Your task to perform on an android device: turn off airplane mode Image 0: 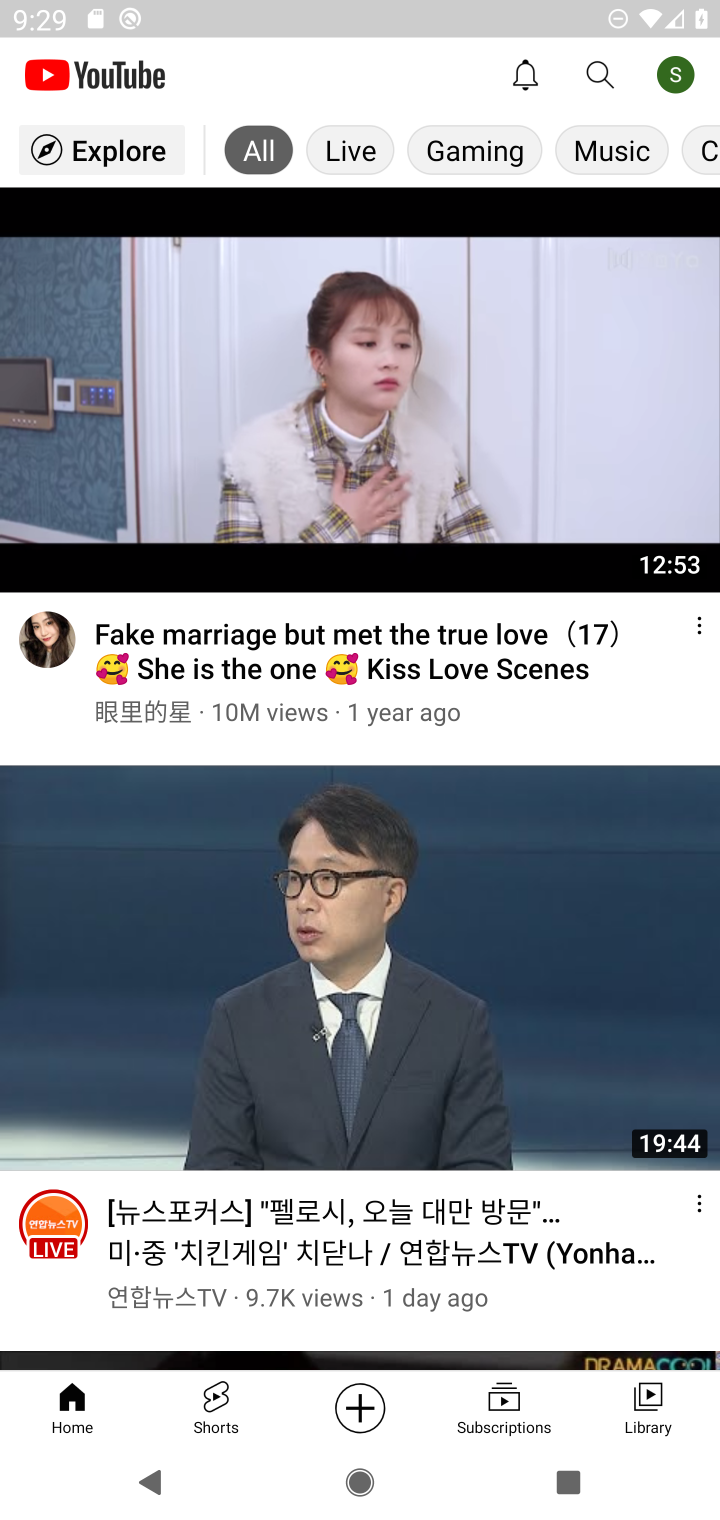
Step 0: press home button
Your task to perform on an android device: turn off airplane mode Image 1: 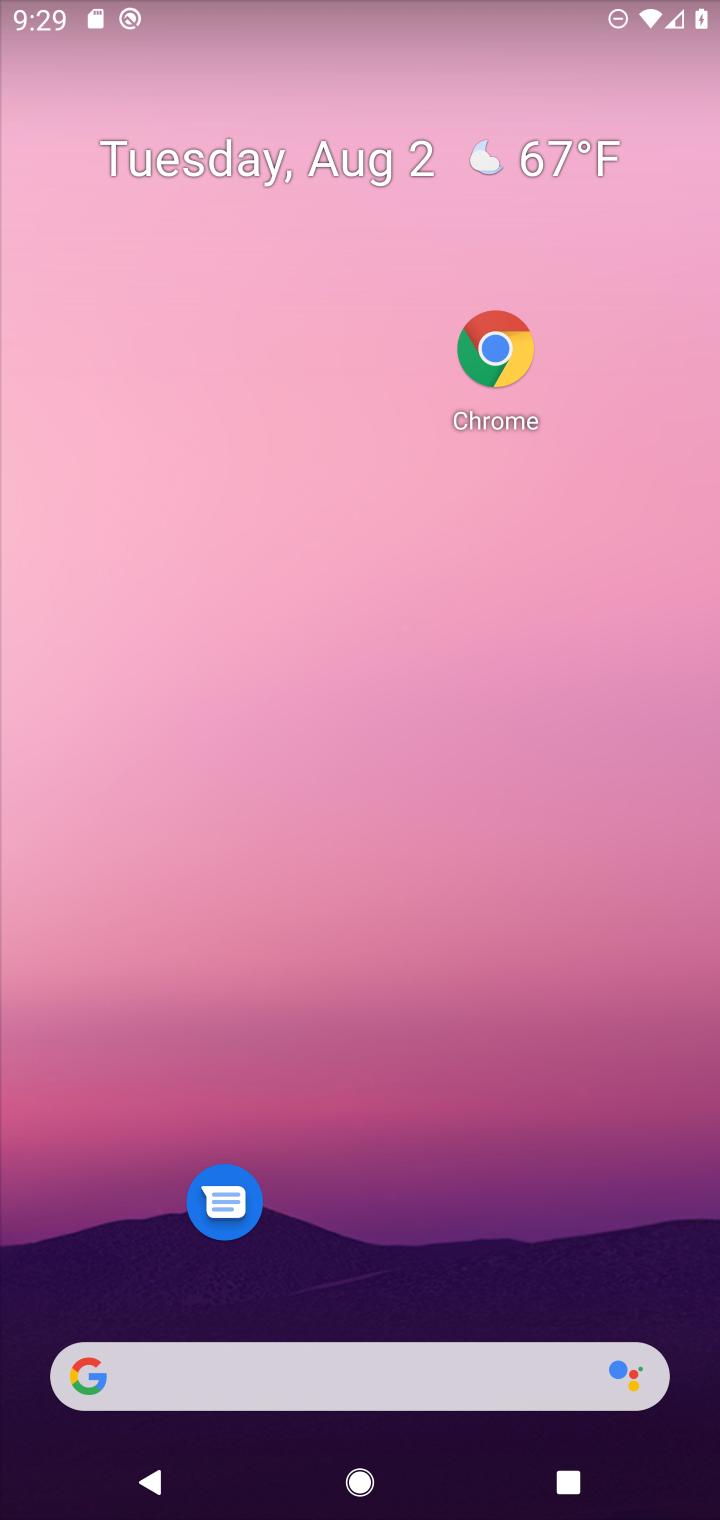
Step 1: drag from (404, 1217) to (374, 49)
Your task to perform on an android device: turn off airplane mode Image 2: 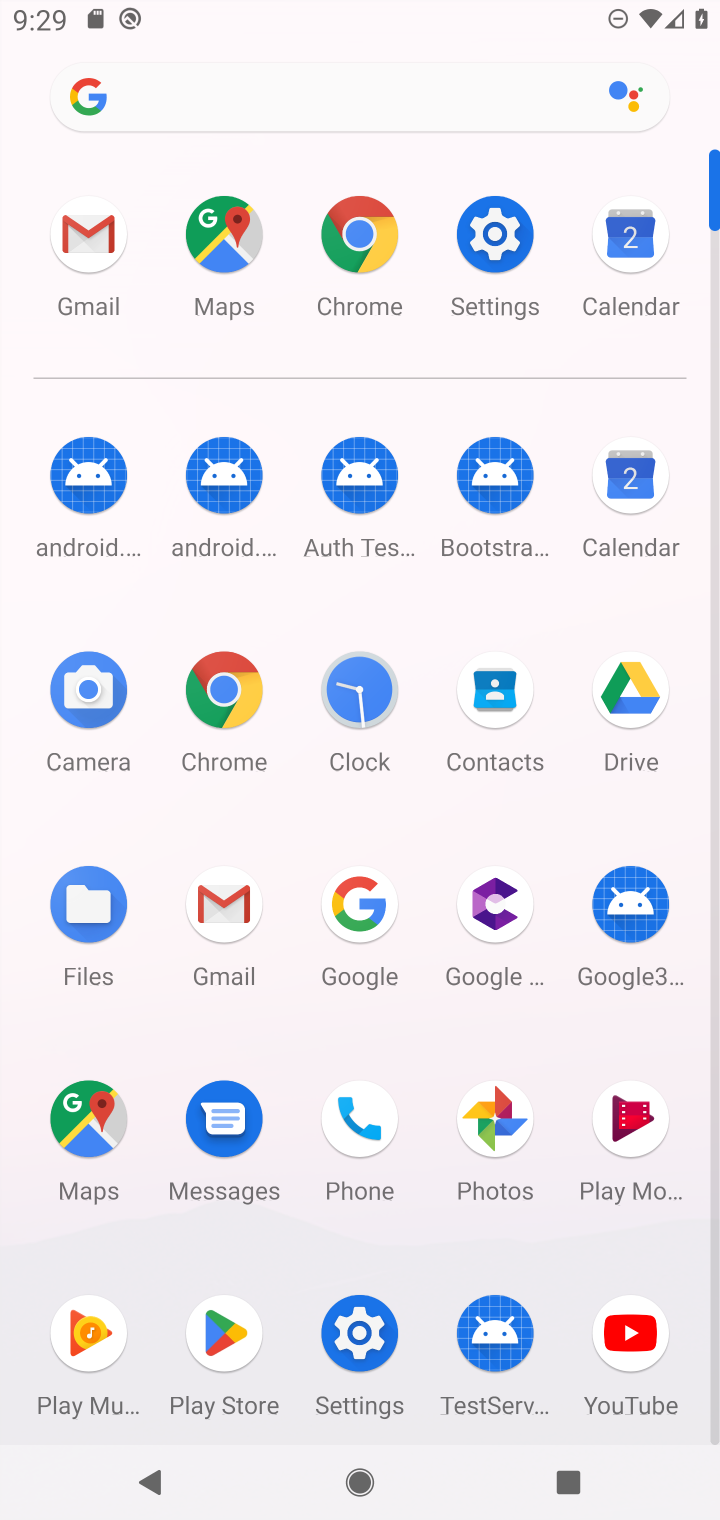
Step 2: click (492, 234)
Your task to perform on an android device: turn off airplane mode Image 3: 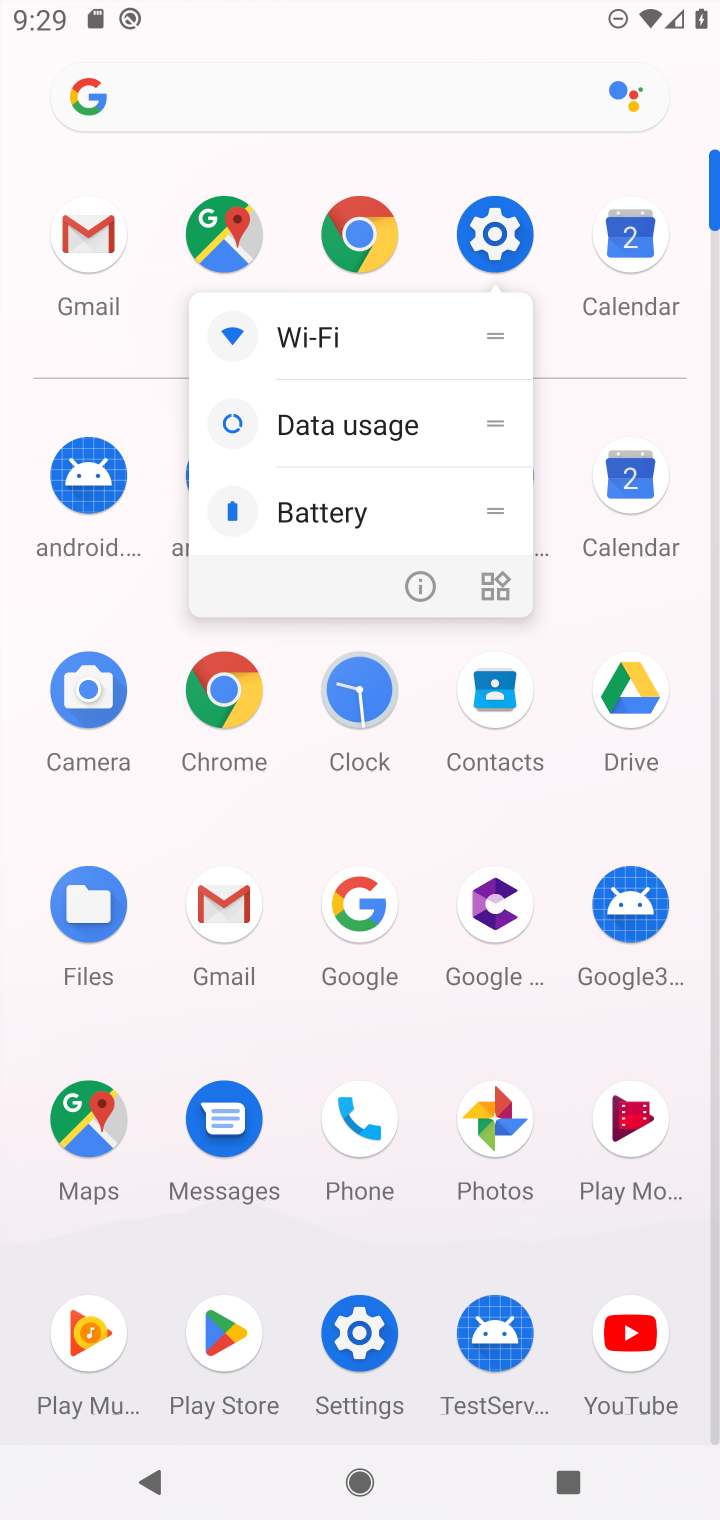
Step 3: click (510, 227)
Your task to perform on an android device: turn off airplane mode Image 4: 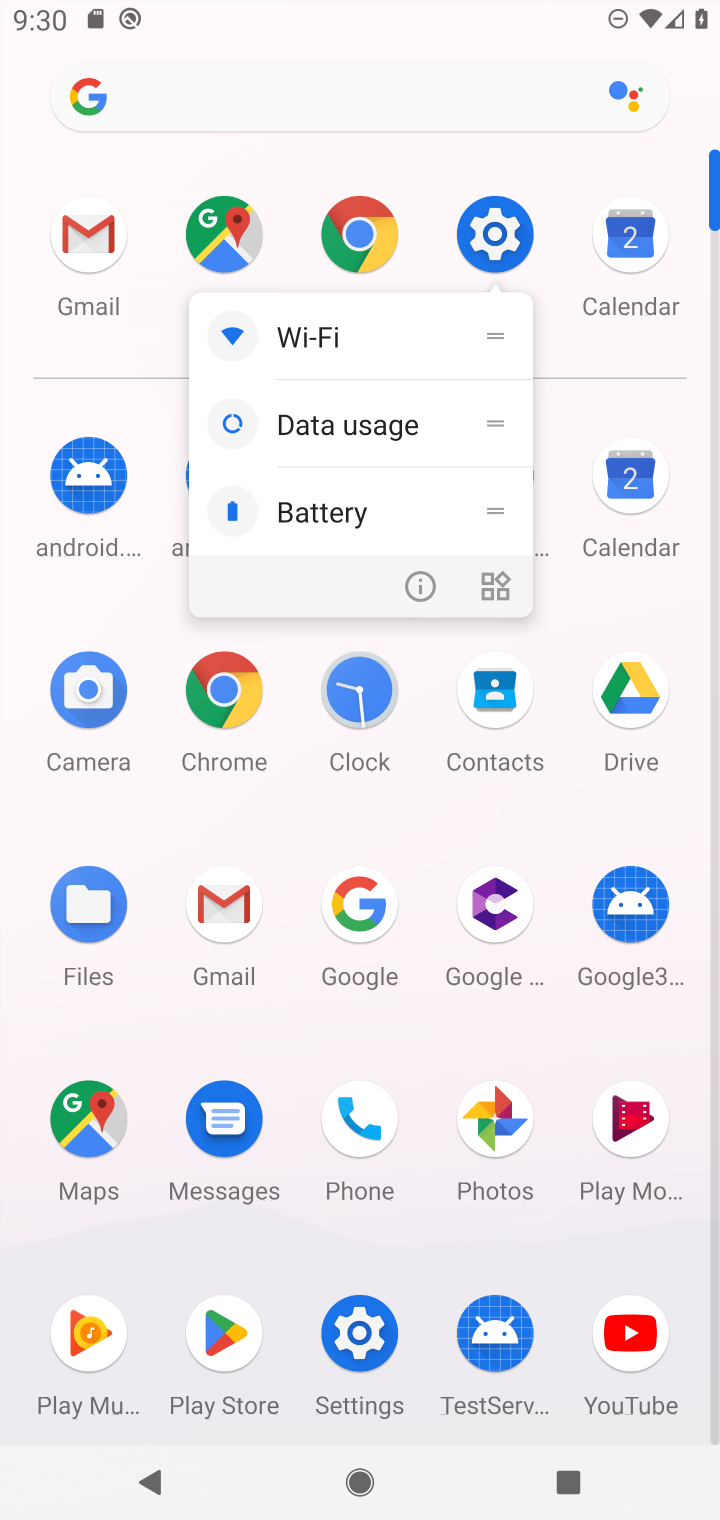
Step 4: click (500, 235)
Your task to perform on an android device: turn off airplane mode Image 5: 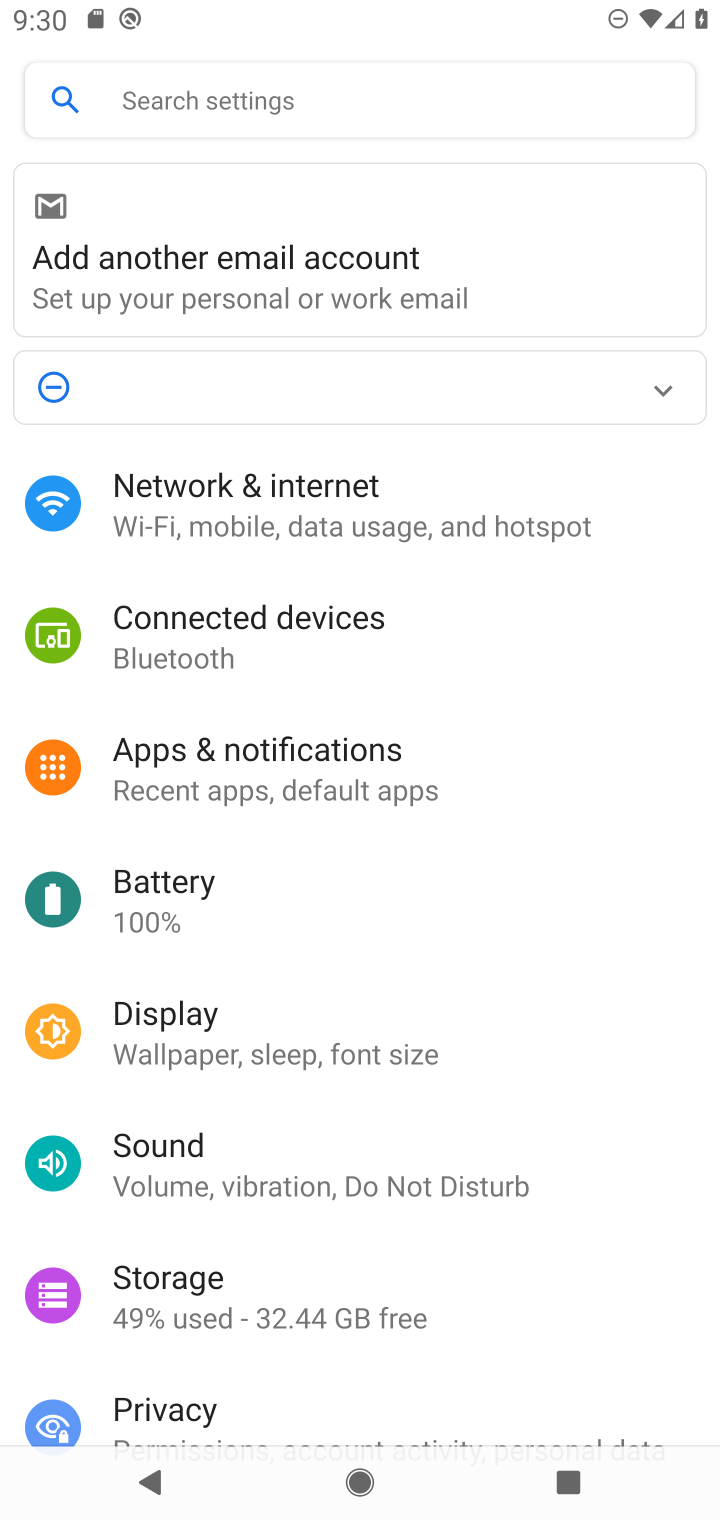
Step 5: click (318, 528)
Your task to perform on an android device: turn off airplane mode Image 6: 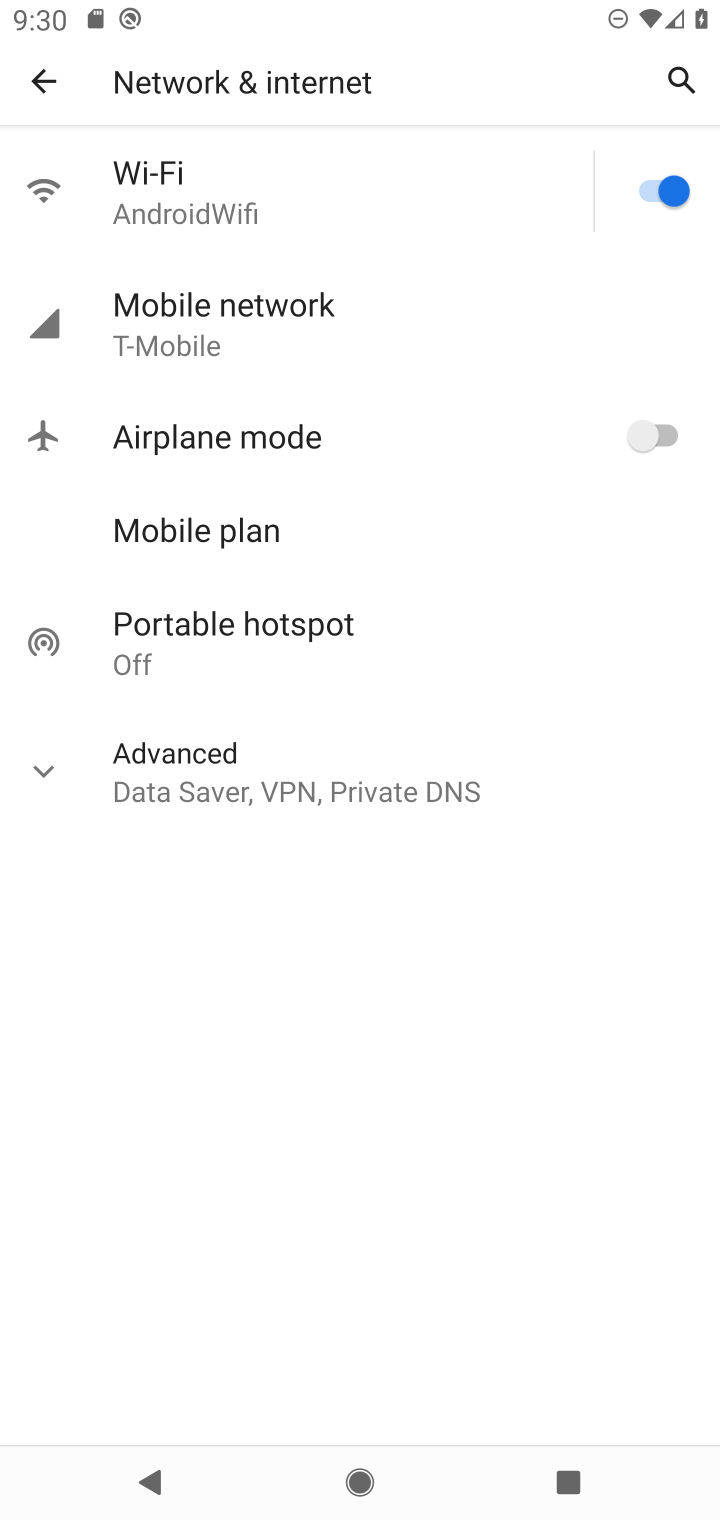
Step 6: task complete